Your task to perform on an android device: turn off airplane mode Image 0: 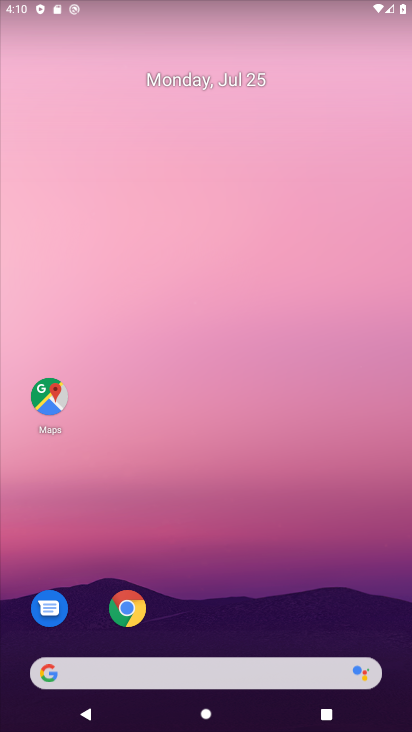
Step 0: drag from (213, 579) to (139, 1)
Your task to perform on an android device: turn off airplane mode Image 1: 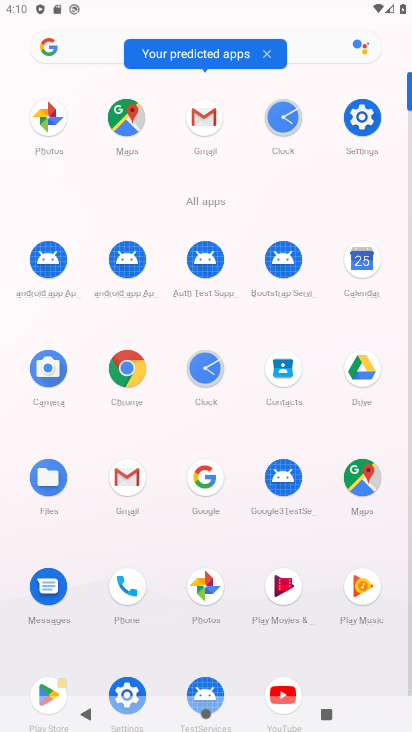
Step 1: click (361, 124)
Your task to perform on an android device: turn off airplane mode Image 2: 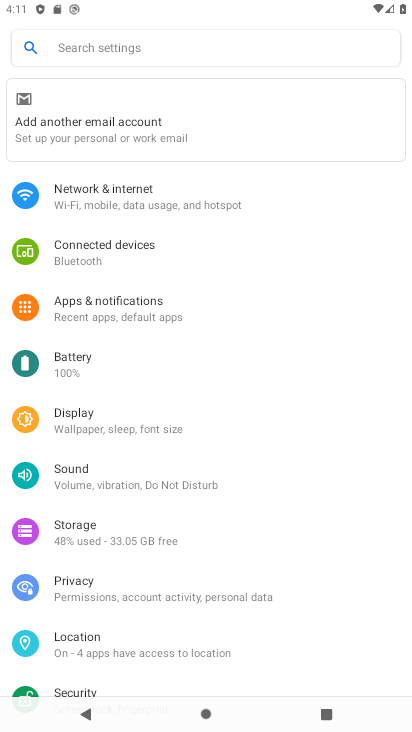
Step 2: click (147, 204)
Your task to perform on an android device: turn off airplane mode Image 3: 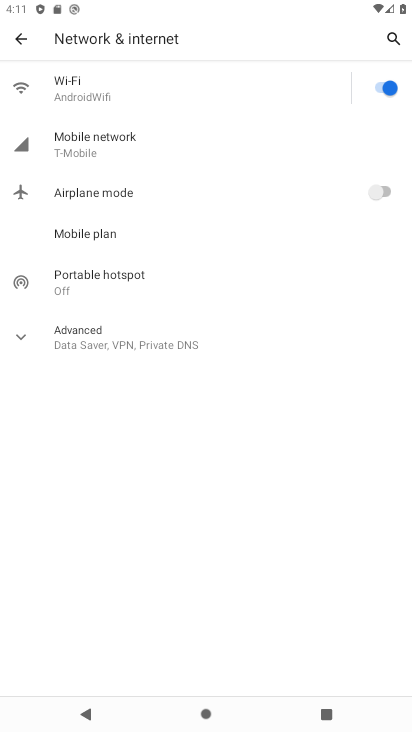
Step 3: task complete